Your task to perform on an android device: What is the recent news? Image 0: 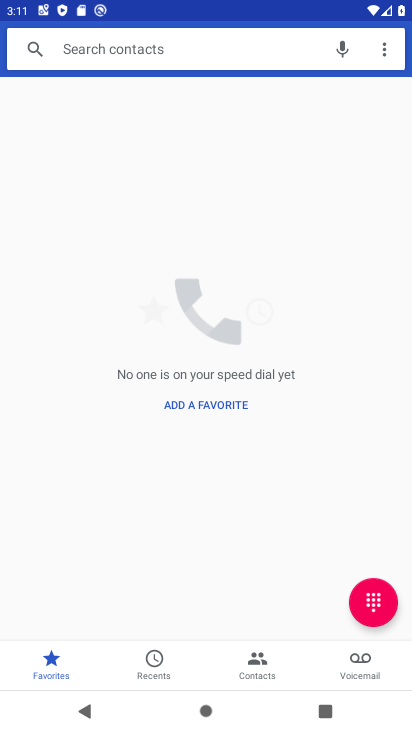
Step 0: press home button
Your task to perform on an android device: What is the recent news? Image 1: 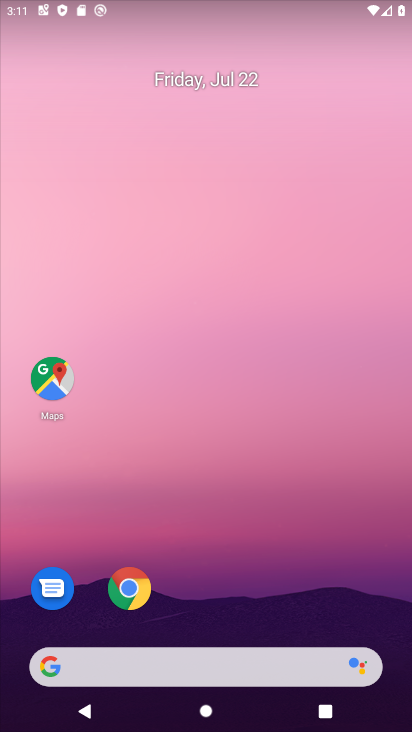
Step 1: drag from (166, 671) to (165, 217)
Your task to perform on an android device: What is the recent news? Image 2: 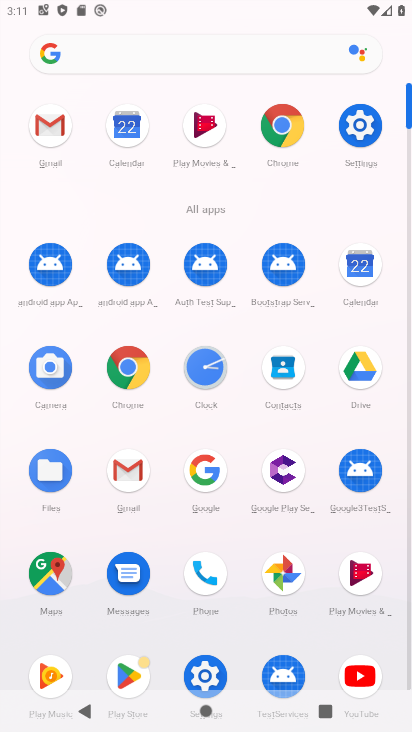
Step 2: click (191, 462)
Your task to perform on an android device: What is the recent news? Image 3: 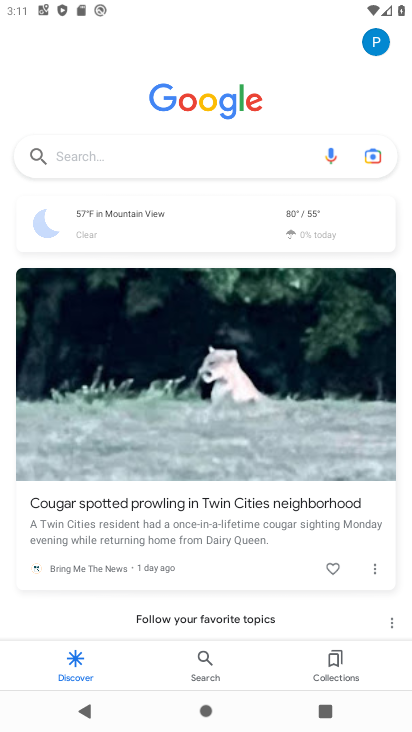
Step 3: click (106, 151)
Your task to perform on an android device: What is the recent news? Image 4: 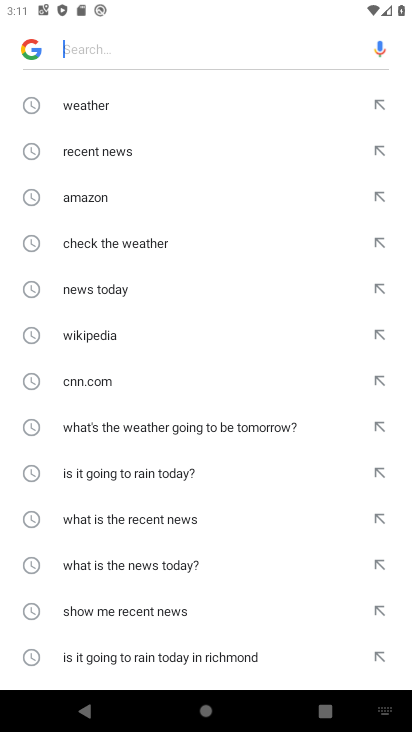
Step 4: click (103, 154)
Your task to perform on an android device: What is the recent news? Image 5: 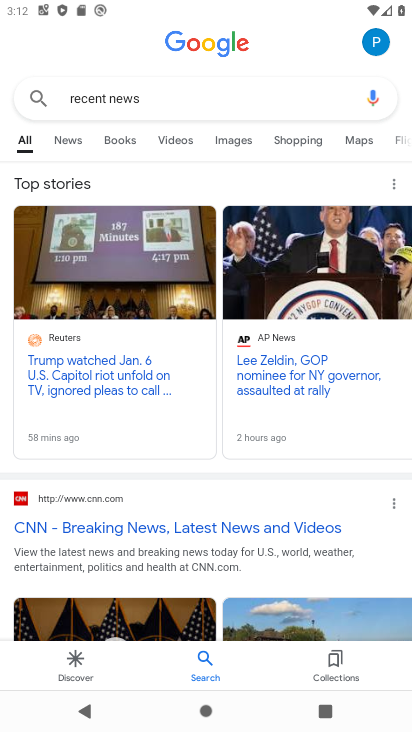
Step 5: task complete